Your task to perform on an android device: find snoozed emails in the gmail app Image 0: 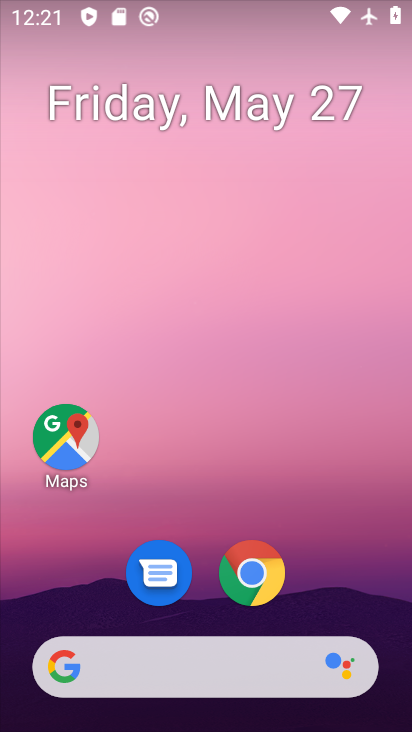
Step 0: drag from (358, 514) to (324, 122)
Your task to perform on an android device: find snoozed emails in the gmail app Image 1: 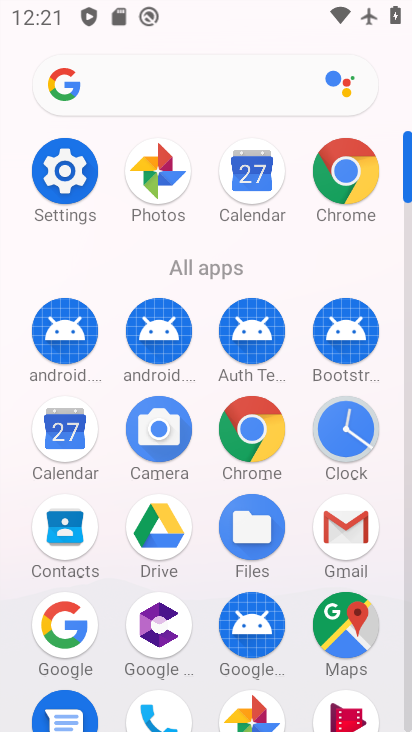
Step 1: click (349, 523)
Your task to perform on an android device: find snoozed emails in the gmail app Image 2: 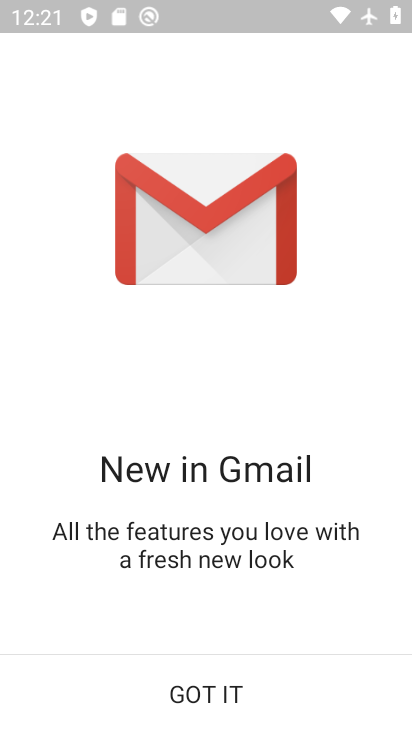
Step 2: click (285, 683)
Your task to perform on an android device: find snoozed emails in the gmail app Image 3: 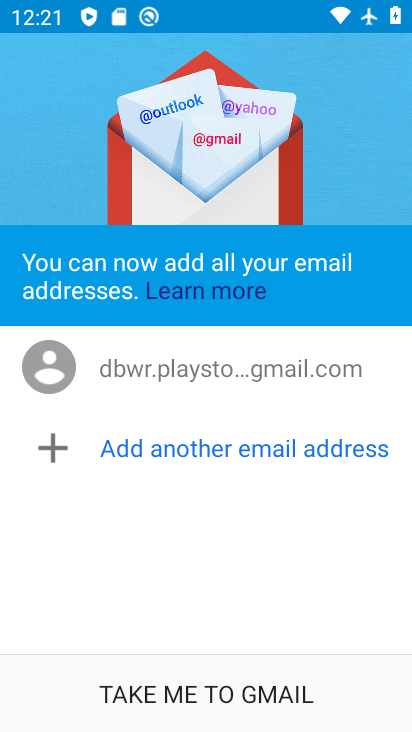
Step 3: click (241, 699)
Your task to perform on an android device: find snoozed emails in the gmail app Image 4: 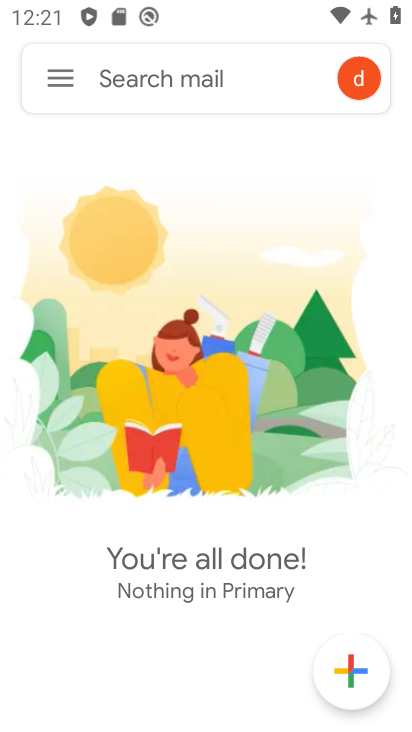
Step 4: click (50, 81)
Your task to perform on an android device: find snoozed emails in the gmail app Image 5: 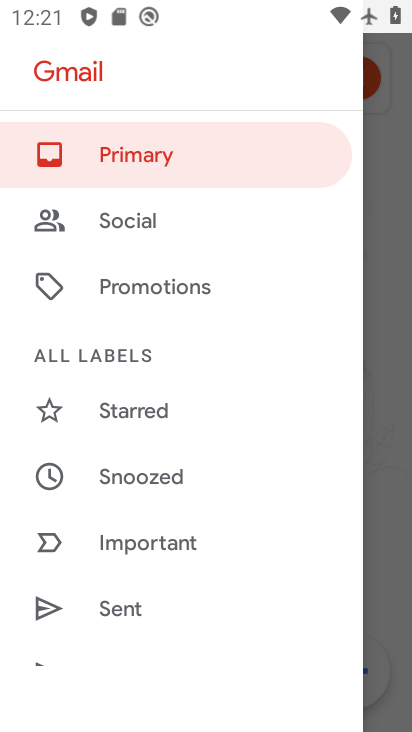
Step 5: drag from (159, 547) to (208, 333)
Your task to perform on an android device: find snoozed emails in the gmail app Image 6: 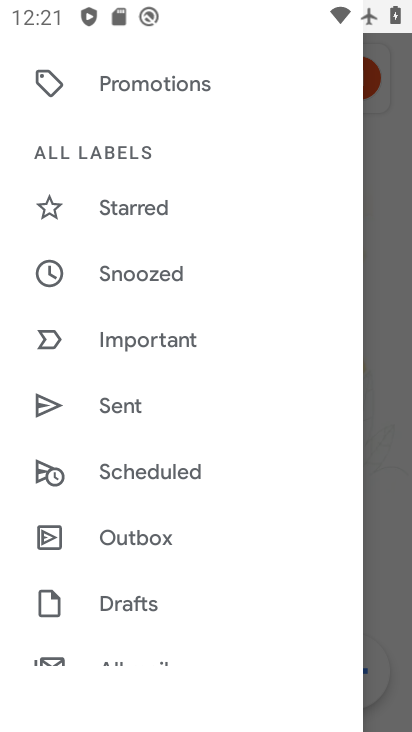
Step 6: click (140, 397)
Your task to perform on an android device: find snoozed emails in the gmail app Image 7: 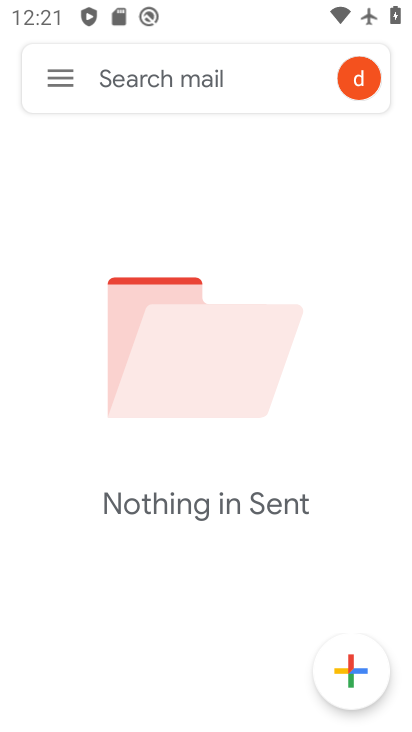
Step 7: click (51, 83)
Your task to perform on an android device: find snoozed emails in the gmail app Image 8: 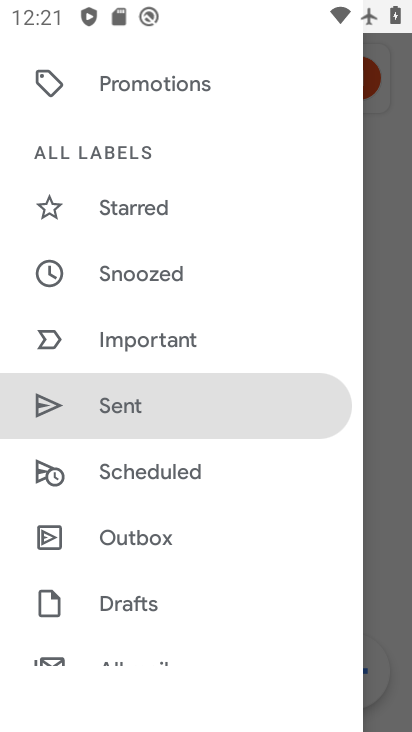
Step 8: click (128, 269)
Your task to perform on an android device: find snoozed emails in the gmail app Image 9: 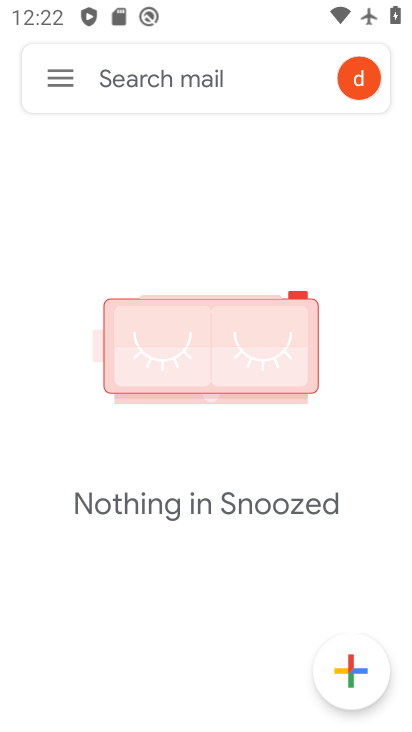
Step 9: task complete